Your task to perform on an android device: Go to Yahoo.com Image 0: 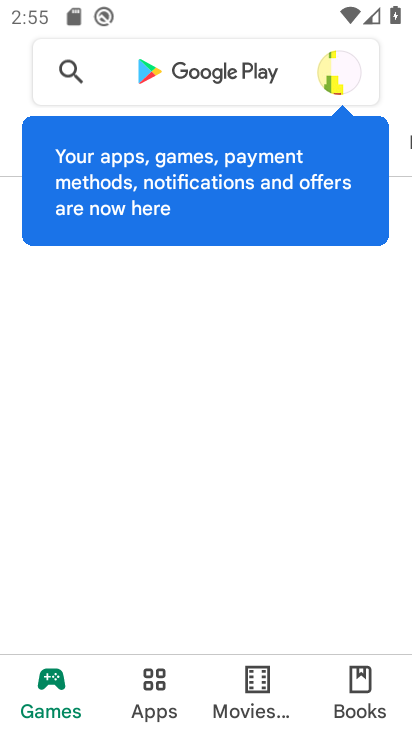
Step 0: press home button
Your task to perform on an android device: Go to Yahoo.com Image 1: 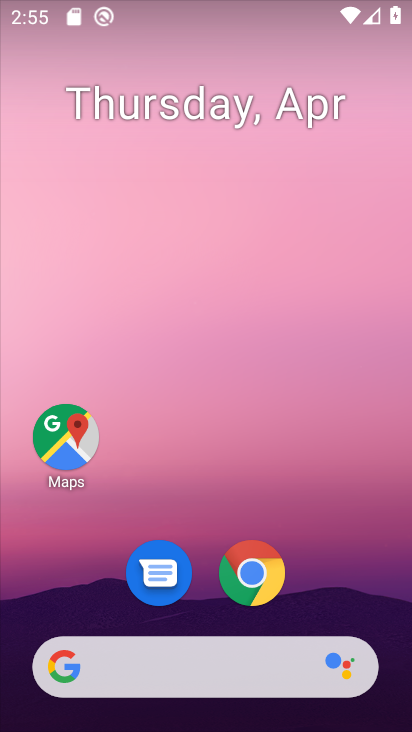
Step 1: drag from (345, 596) to (309, 34)
Your task to perform on an android device: Go to Yahoo.com Image 2: 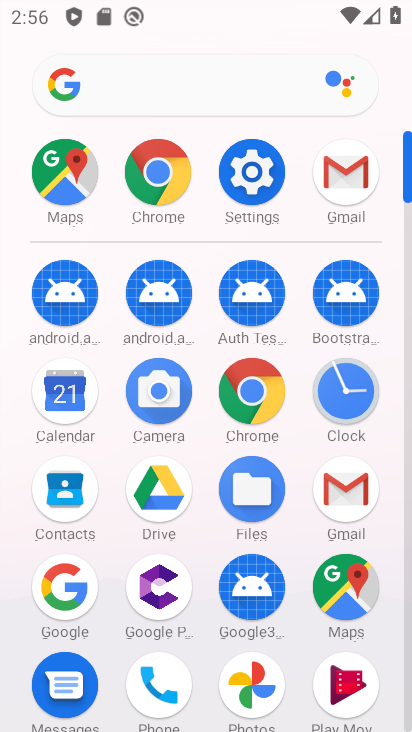
Step 2: click (253, 394)
Your task to perform on an android device: Go to Yahoo.com Image 3: 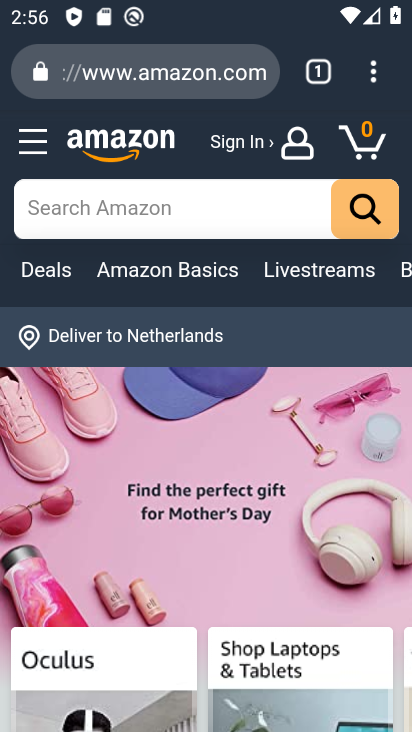
Step 3: press back button
Your task to perform on an android device: Go to Yahoo.com Image 4: 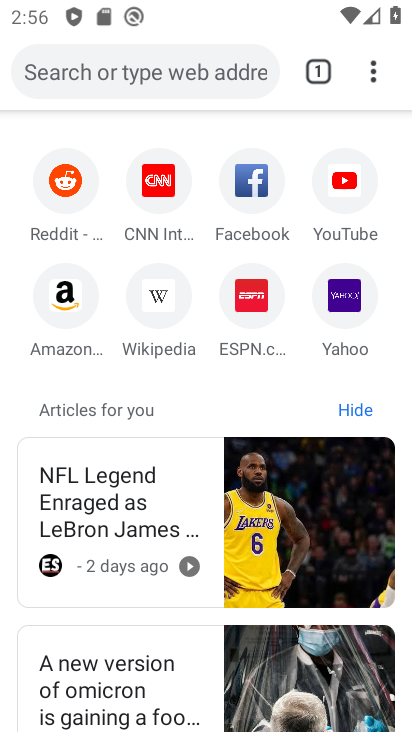
Step 4: click (343, 306)
Your task to perform on an android device: Go to Yahoo.com Image 5: 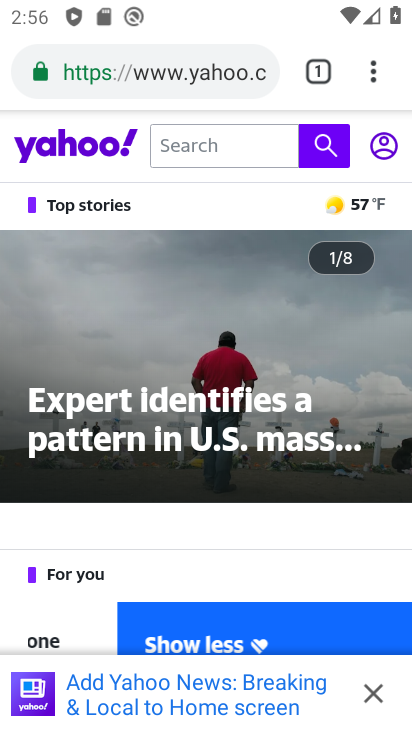
Step 5: task complete